Your task to perform on an android device: Go to privacy settings Image 0: 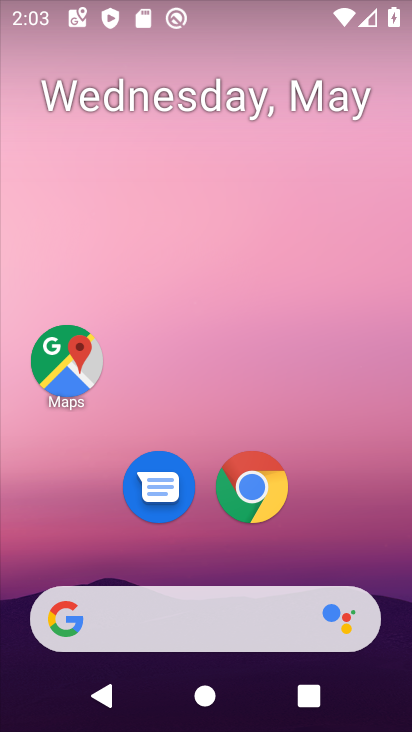
Step 0: drag from (373, 480) to (312, 0)
Your task to perform on an android device: Go to privacy settings Image 1: 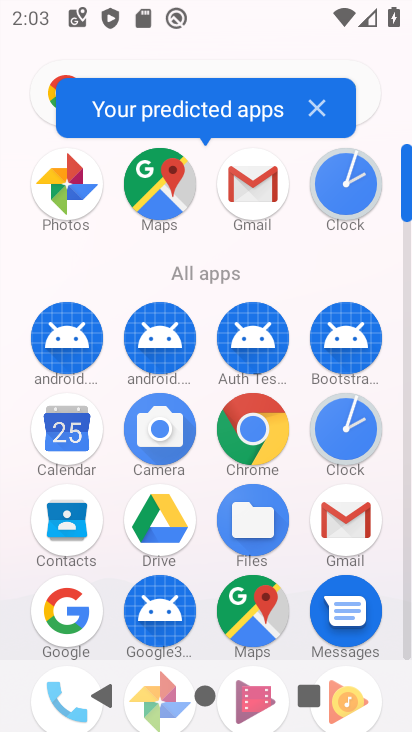
Step 1: drag from (398, 593) to (390, 133)
Your task to perform on an android device: Go to privacy settings Image 2: 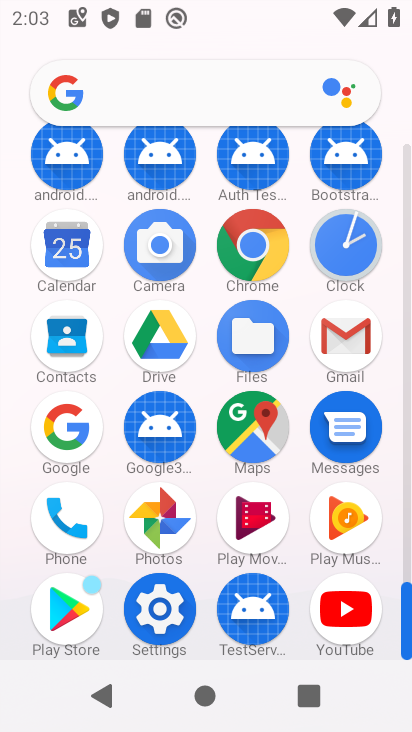
Step 2: click (170, 573)
Your task to perform on an android device: Go to privacy settings Image 3: 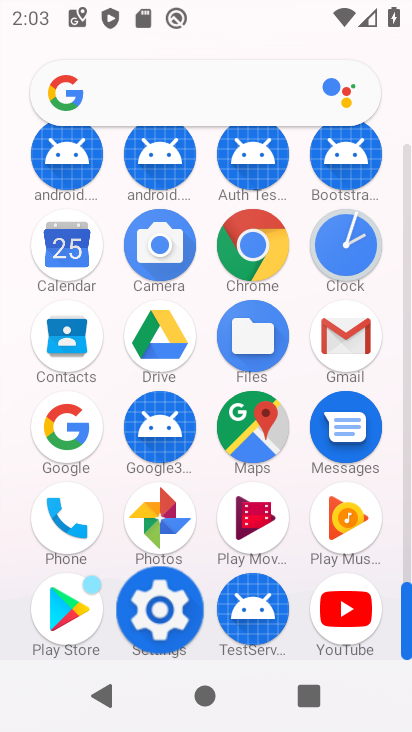
Step 3: click (163, 589)
Your task to perform on an android device: Go to privacy settings Image 4: 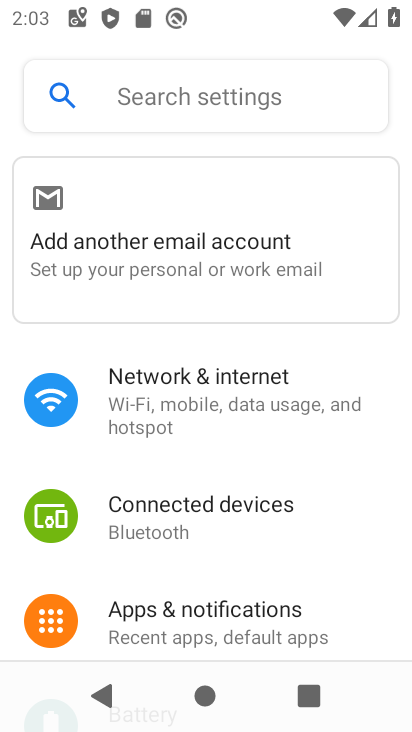
Step 4: drag from (165, 566) to (266, 64)
Your task to perform on an android device: Go to privacy settings Image 5: 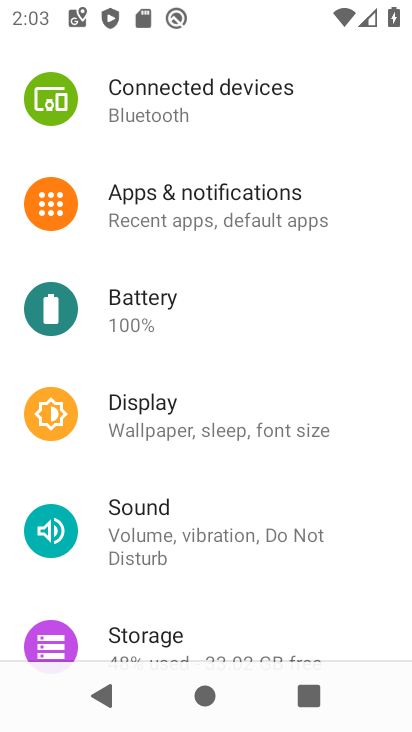
Step 5: drag from (159, 538) to (182, 109)
Your task to perform on an android device: Go to privacy settings Image 6: 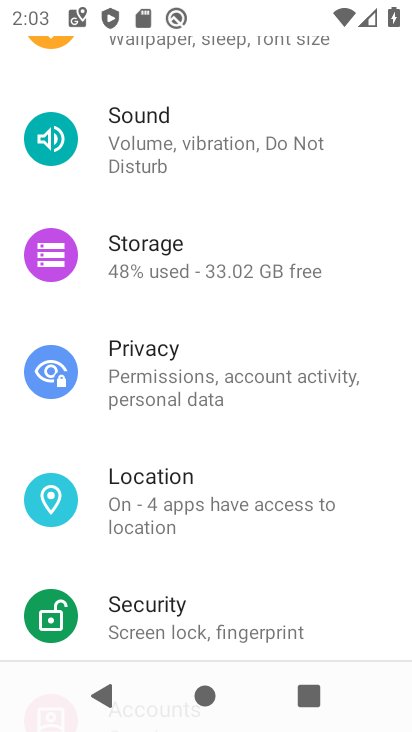
Step 6: click (141, 371)
Your task to perform on an android device: Go to privacy settings Image 7: 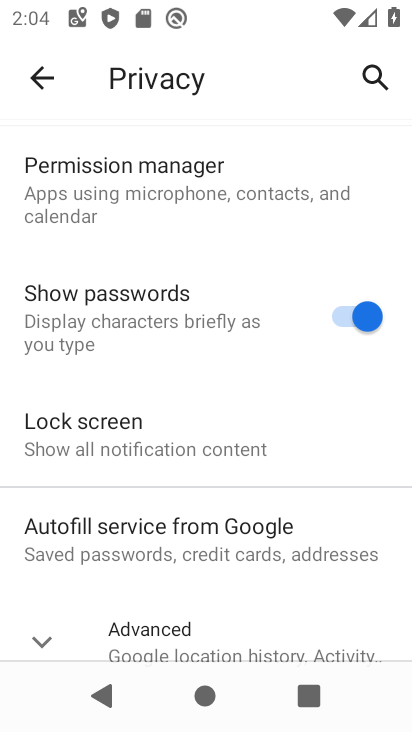
Step 7: task complete